Your task to perform on an android device: turn notification dots on Image 0: 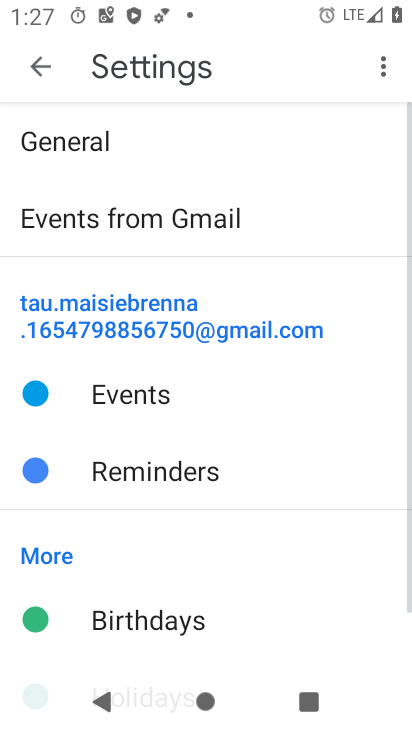
Step 0: press home button
Your task to perform on an android device: turn notification dots on Image 1: 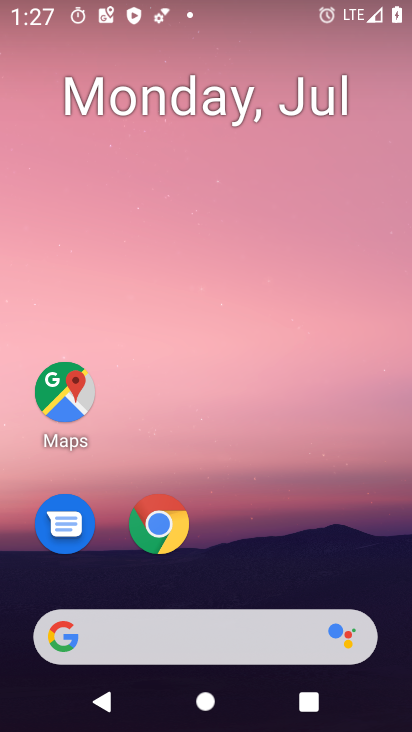
Step 1: drag from (263, 553) to (316, 1)
Your task to perform on an android device: turn notification dots on Image 2: 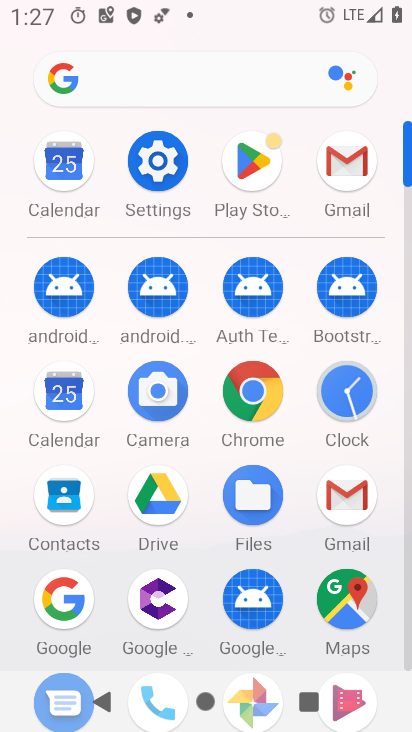
Step 2: click (157, 162)
Your task to perform on an android device: turn notification dots on Image 3: 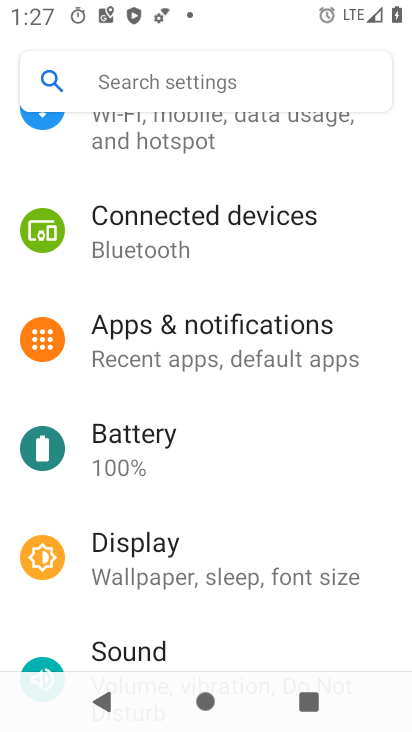
Step 3: click (159, 340)
Your task to perform on an android device: turn notification dots on Image 4: 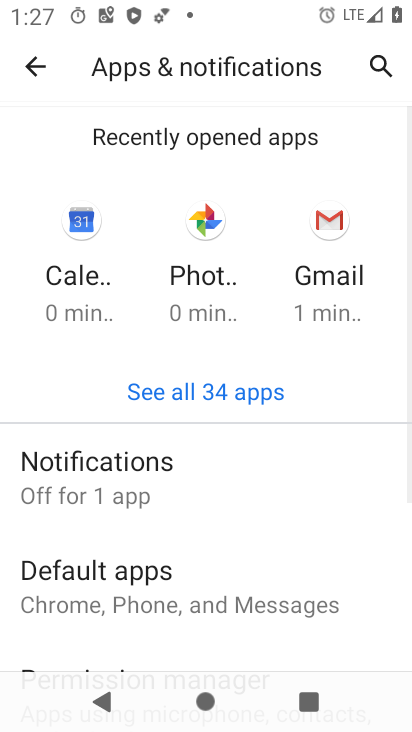
Step 4: click (168, 466)
Your task to perform on an android device: turn notification dots on Image 5: 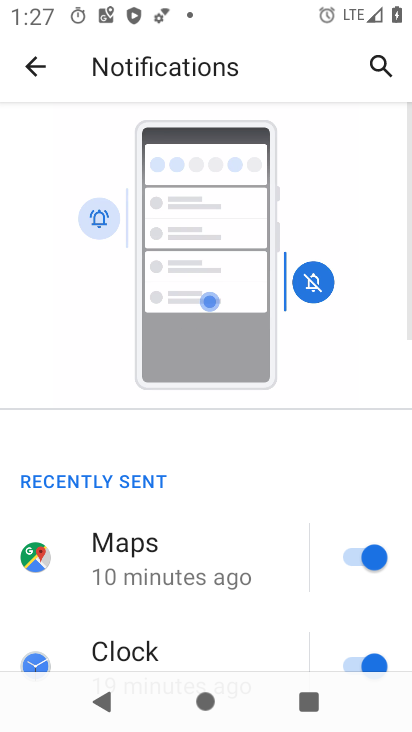
Step 5: drag from (279, 477) to (337, 14)
Your task to perform on an android device: turn notification dots on Image 6: 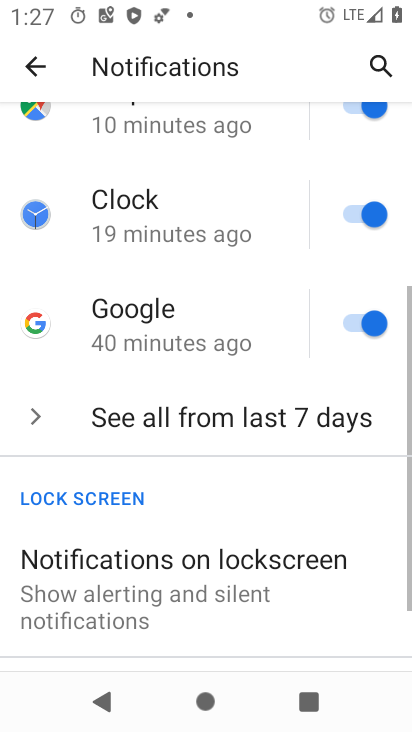
Step 6: drag from (297, 486) to (293, 12)
Your task to perform on an android device: turn notification dots on Image 7: 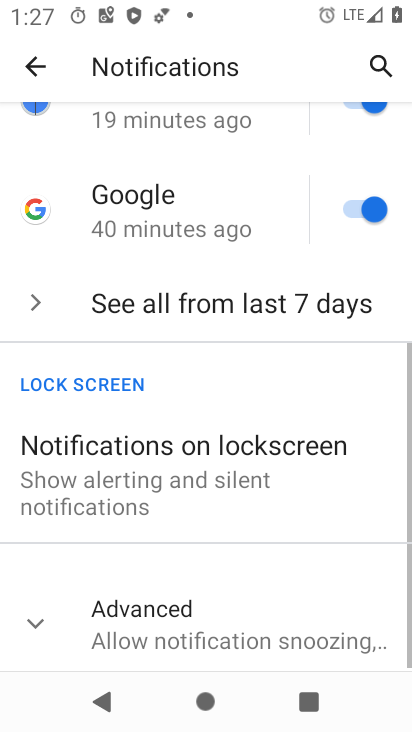
Step 7: drag from (263, 571) to (254, 25)
Your task to perform on an android device: turn notification dots on Image 8: 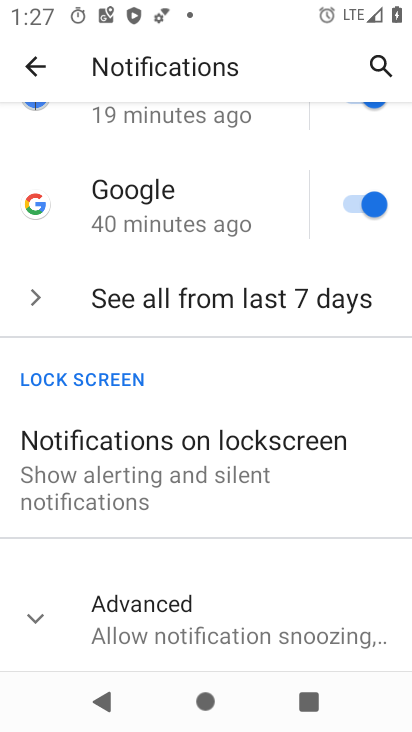
Step 8: click (32, 620)
Your task to perform on an android device: turn notification dots on Image 9: 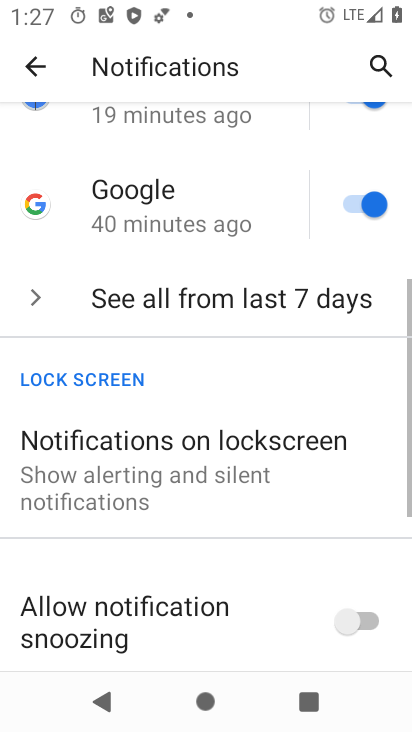
Step 9: task complete